Your task to perform on an android device: Open internet settings Image 0: 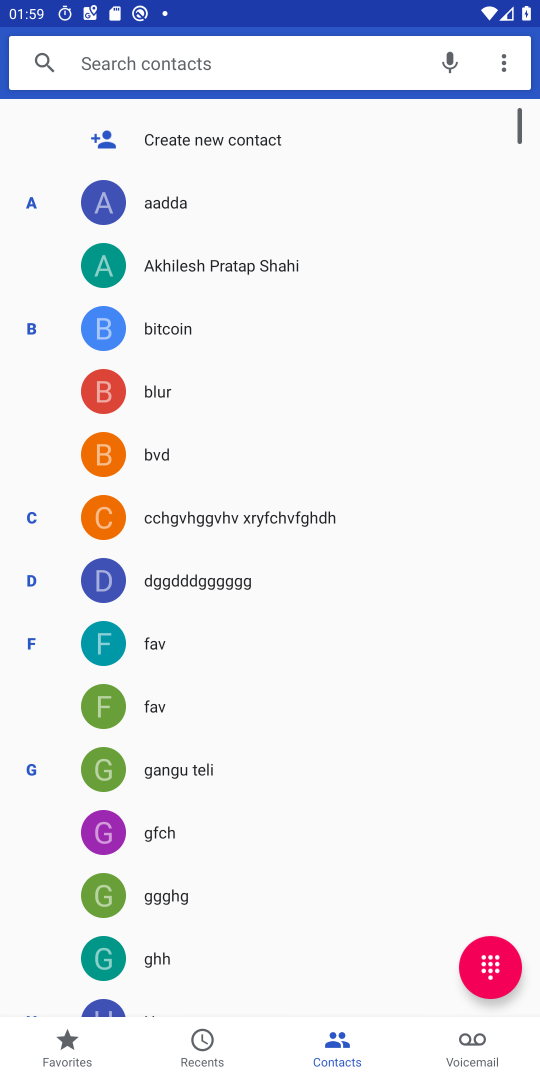
Step 0: press home button
Your task to perform on an android device: Open internet settings Image 1: 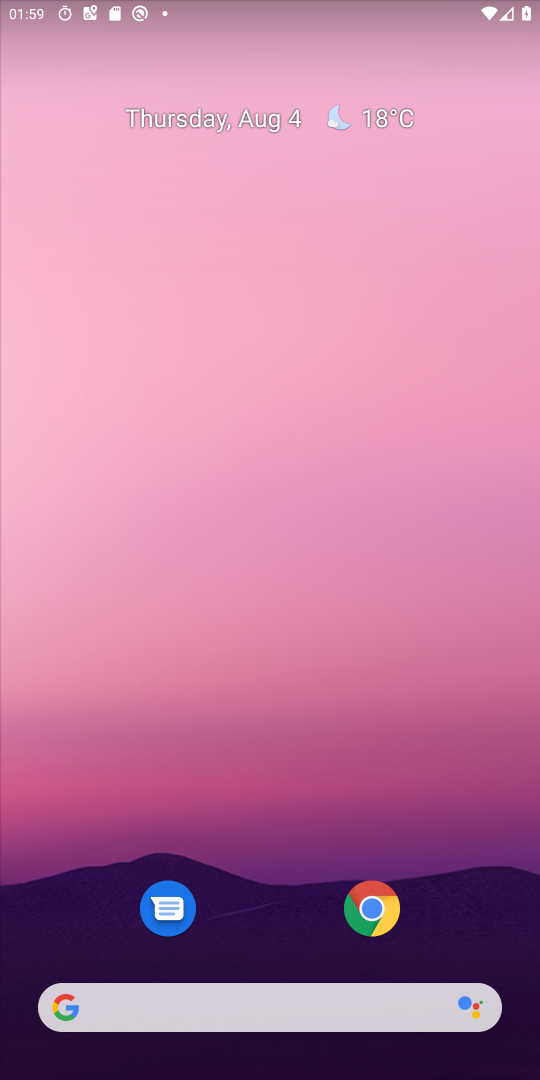
Step 1: drag from (371, 998) to (277, 357)
Your task to perform on an android device: Open internet settings Image 2: 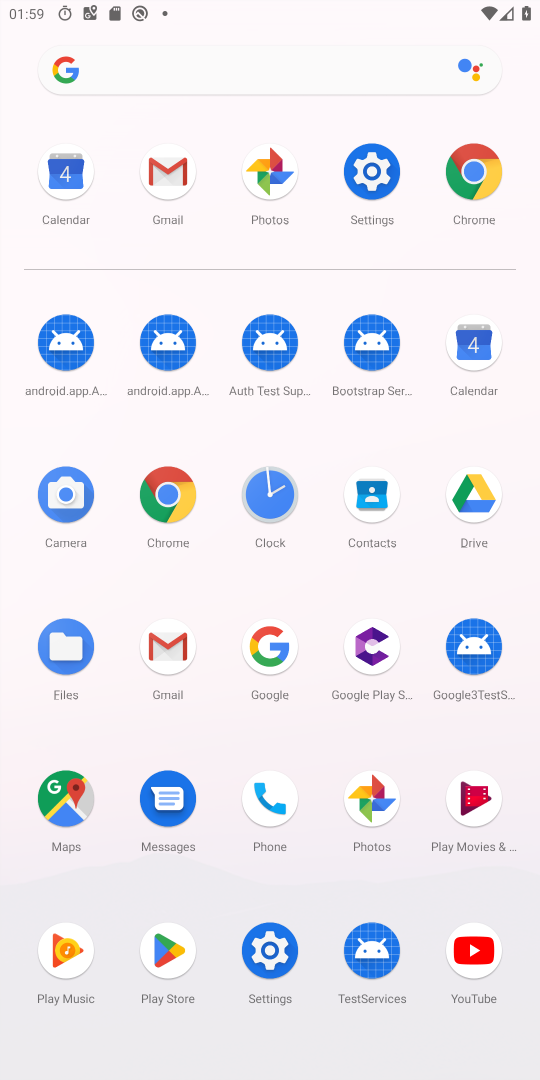
Step 2: click (371, 168)
Your task to perform on an android device: Open internet settings Image 3: 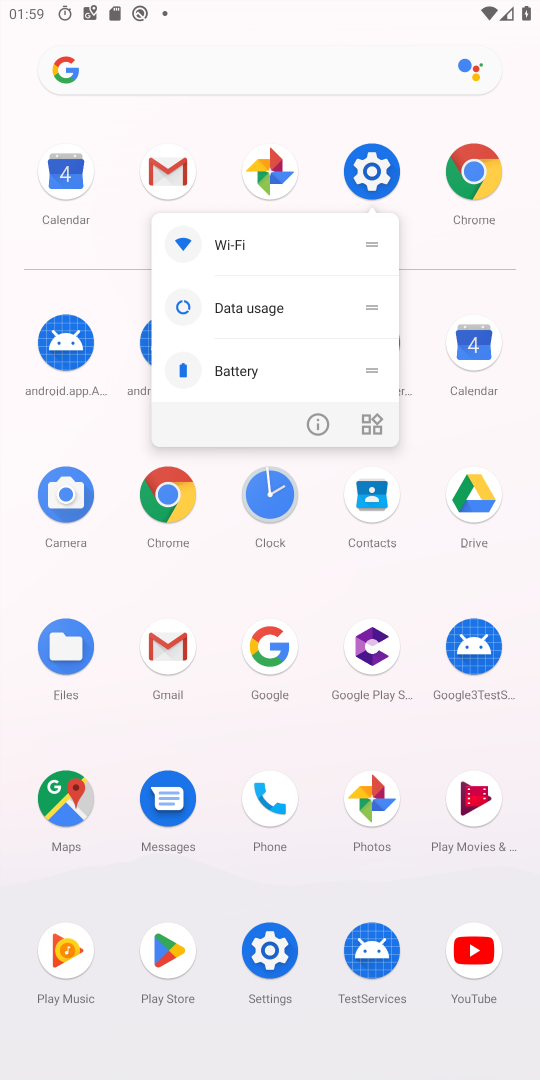
Step 3: click (380, 165)
Your task to perform on an android device: Open internet settings Image 4: 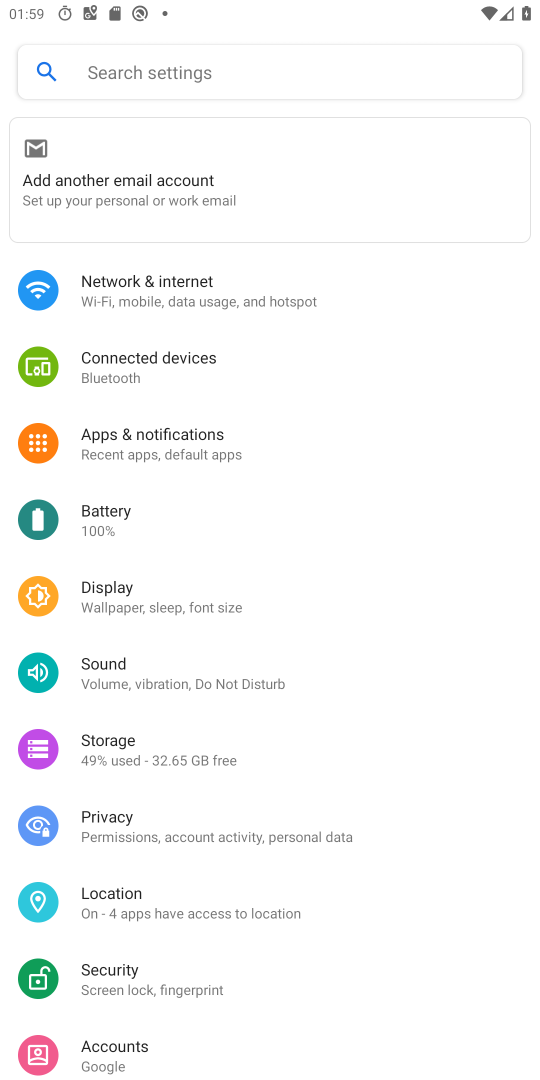
Step 4: click (128, 293)
Your task to perform on an android device: Open internet settings Image 5: 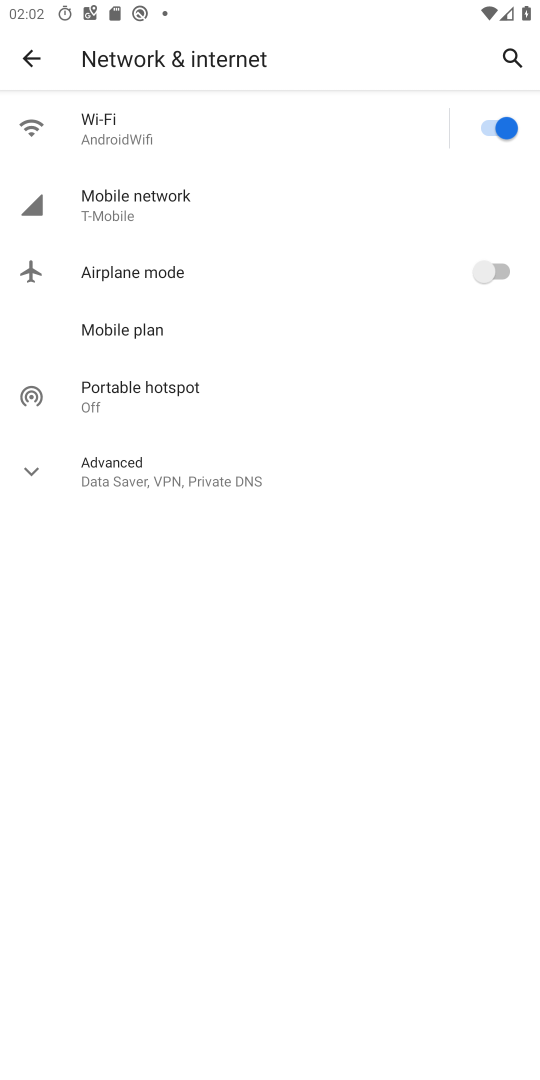
Step 5: task complete